Your task to perform on an android device: What's the weather going to be tomorrow? Image 0: 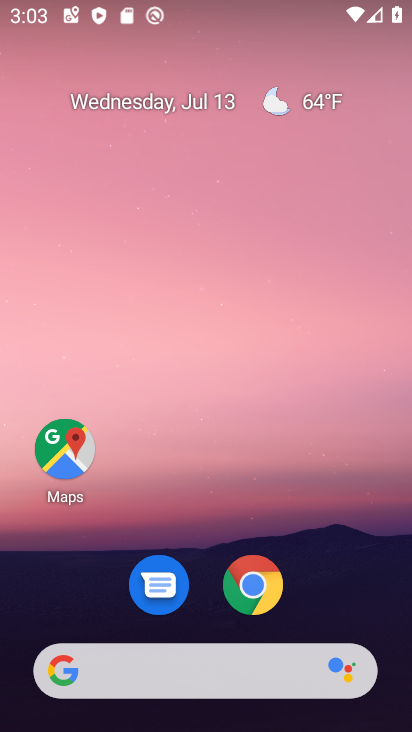
Step 0: click (163, 672)
Your task to perform on an android device: What's the weather going to be tomorrow? Image 1: 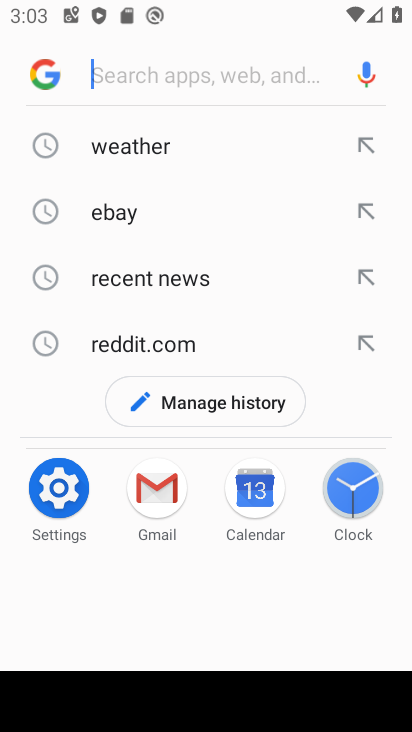
Step 1: click (148, 155)
Your task to perform on an android device: What's the weather going to be tomorrow? Image 2: 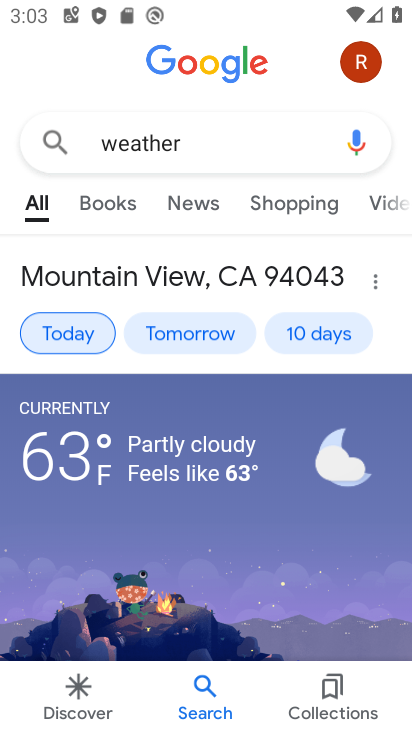
Step 2: click (164, 329)
Your task to perform on an android device: What's the weather going to be tomorrow? Image 3: 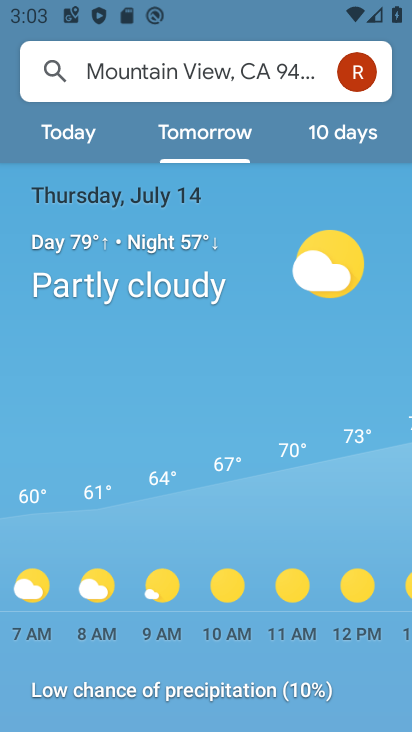
Step 3: task complete